Your task to perform on an android device: turn notification dots off Image 0: 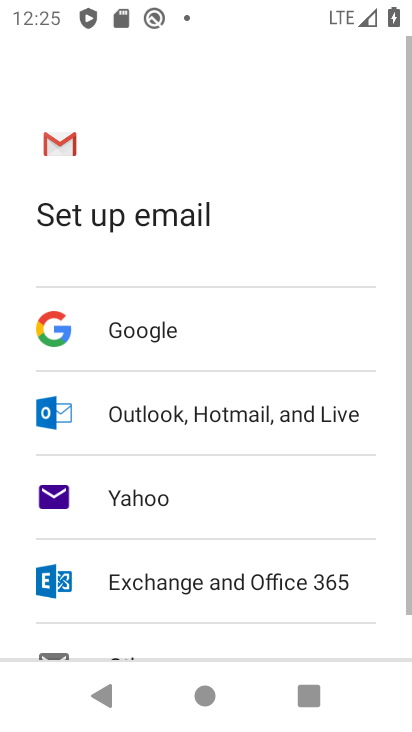
Step 0: press back button
Your task to perform on an android device: turn notification dots off Image 1: 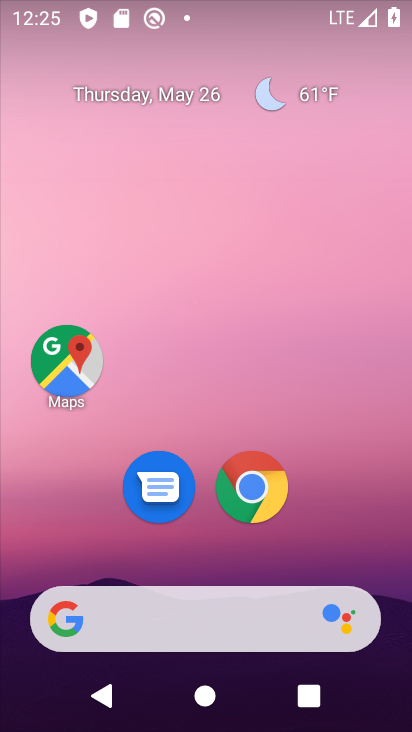
Step 1: drag from (332, 639) to (179, 137)
Your task to perform on an android device: turn notification dots off Image 2: 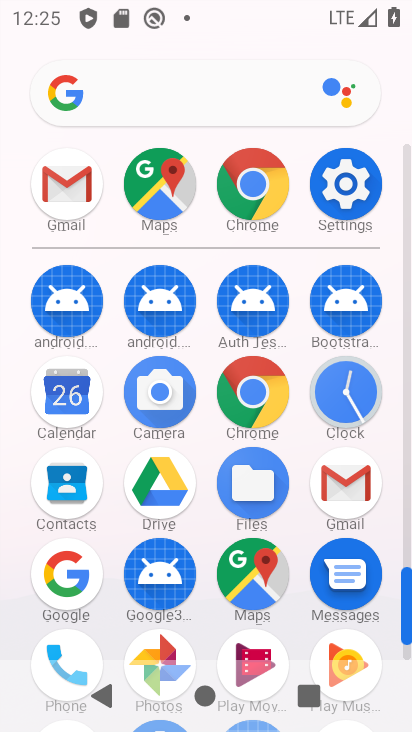
Step 2: click (344, 191)
Your task to perform on an android device: turn notification dots off Image 3: 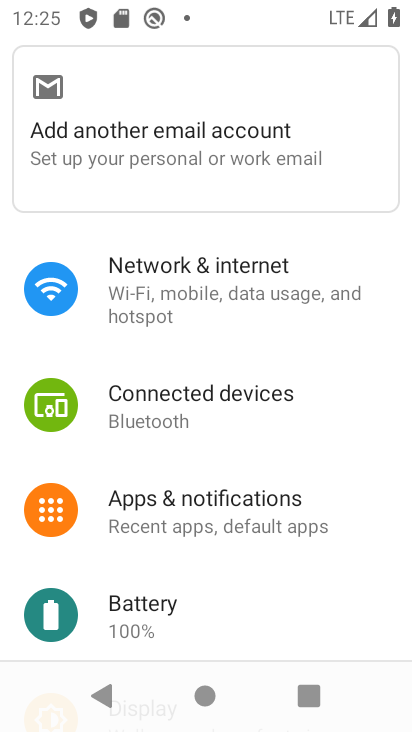
Step 3: click (191, 523)
Your task to perform on an android device: turn notification dots off Image 4: 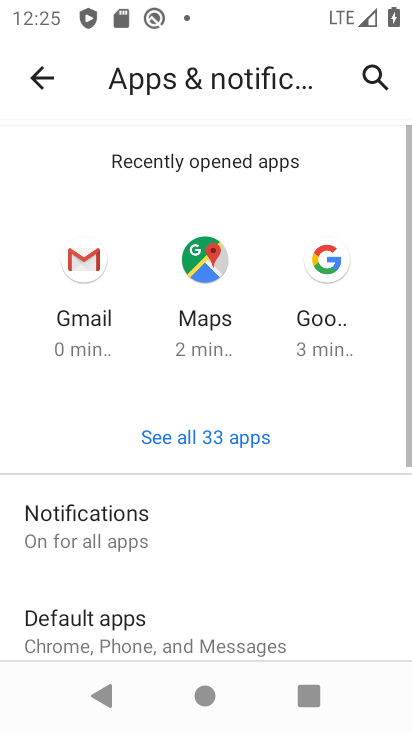
Step 4: drag from (227, 522) to (248, 142)
Your task to perform on an android device: turn notification dots off Image 5: 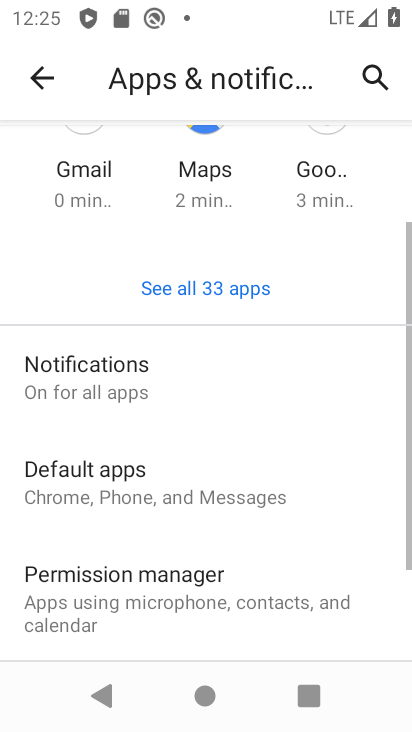
Step 5: drag from (203, 520) to (243, 383)
Your task to perform on an android device: turn notification dots off Image 6: 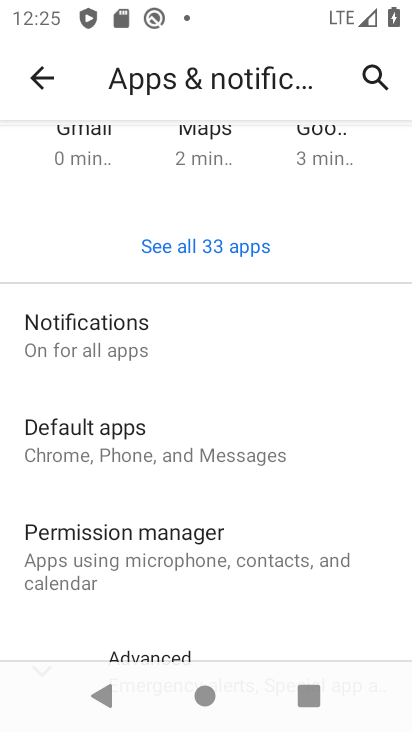
Step 6: click (105, 363)
Your task to perform on an android device: turn notification dots off Image 7: 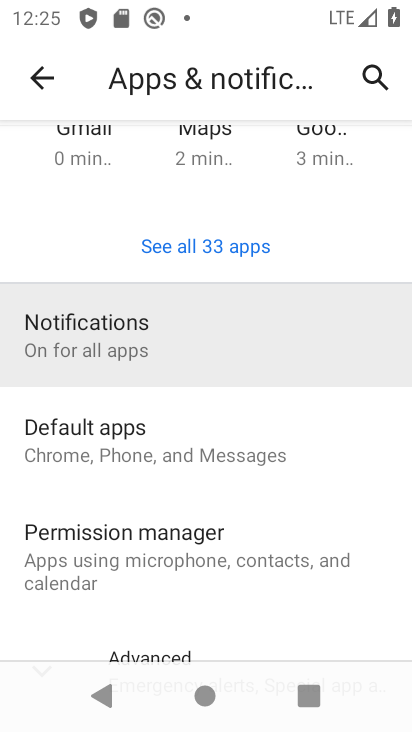
Step 7: click (100, 342)
Your task to perform on an android device: turn notification dots off Image 8: 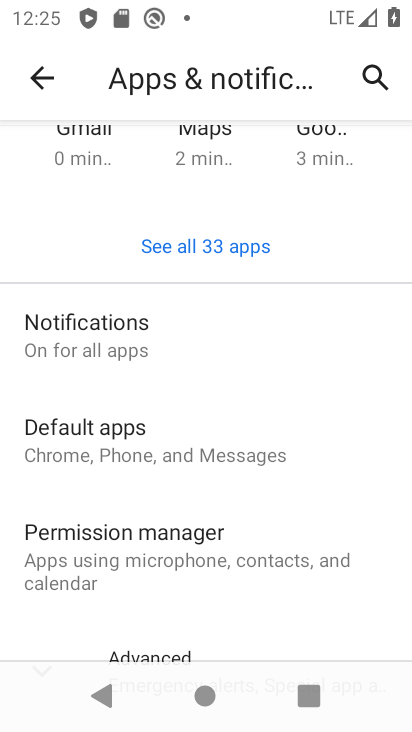
Step 8: click (100, 341)
Your task to perform on an android device: turn notification dots off Image 9: 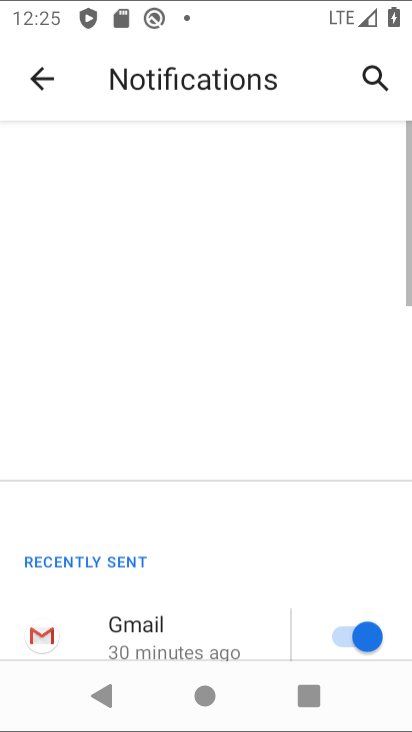
Step 9: click (98, 337)
Your task to perform on an android device: turn notification dots off Image 10: 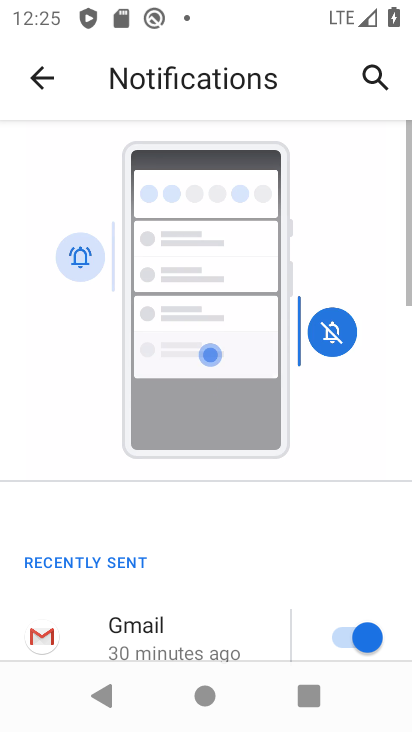
Step 10: drag from (179, 502) to (142, 233)
Your task to perform on an android device: turn notification dots off Image 11: 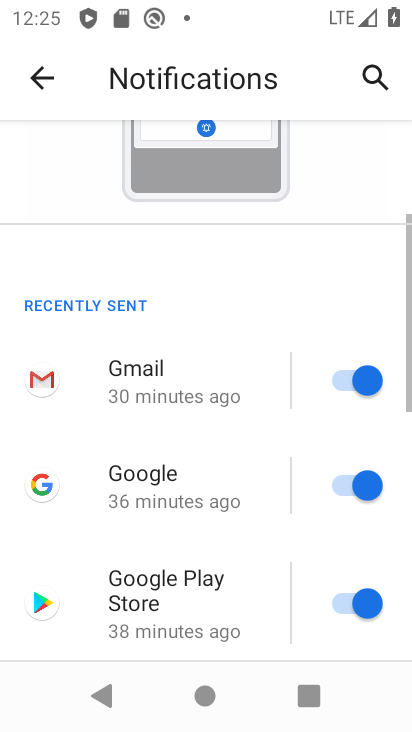
Step 11: drag from (207, 332) to (228, 169)
Your task to perform on an android device: turn notification dots off Image 12: 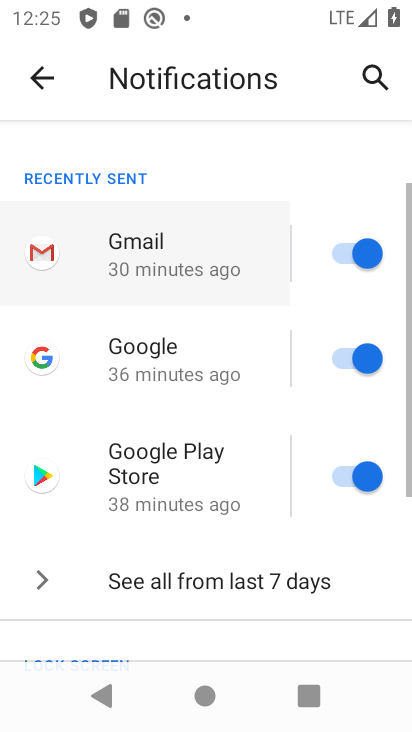
Step 12: drag from (198, 511) to (197, 360)
Your task to perform on an android device: turn notification dots off Image 13: 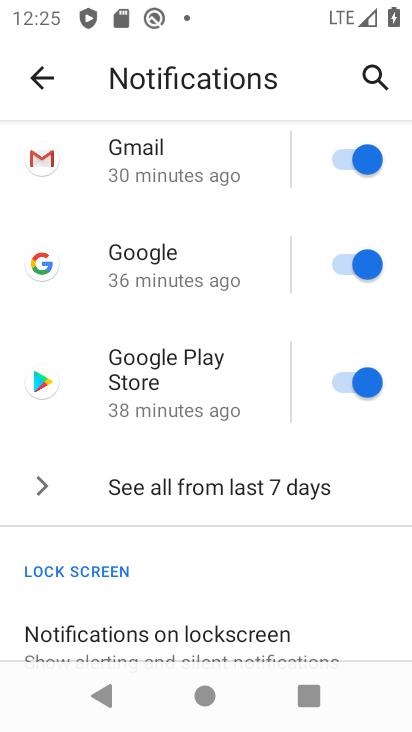
Step 13: drag from (216, 523) to (222, 207)
Your task to perform on an android device: turn notification dots off Image 14: 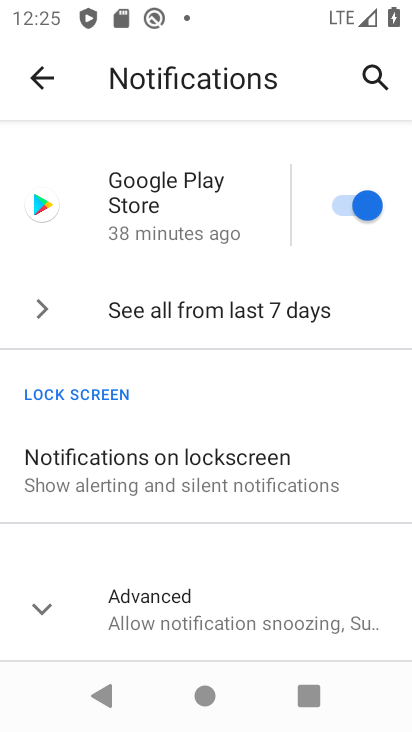
Step 14: click (165, 598)
Your task to perform on an android device: turn notification dots off Image 15: 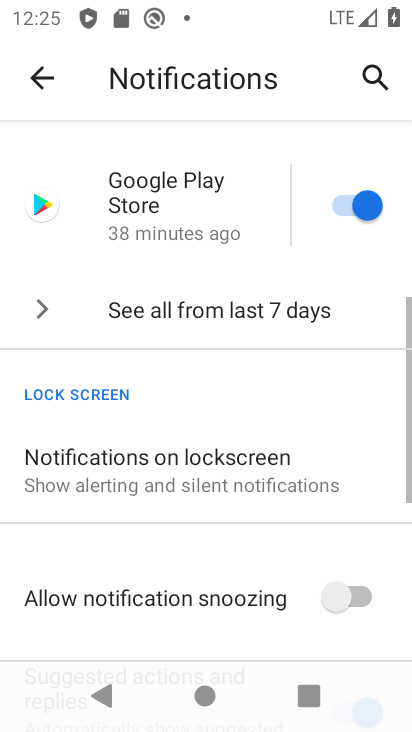
Step 15: task complete